Your task to perform on an android device: check google app version Image 0: 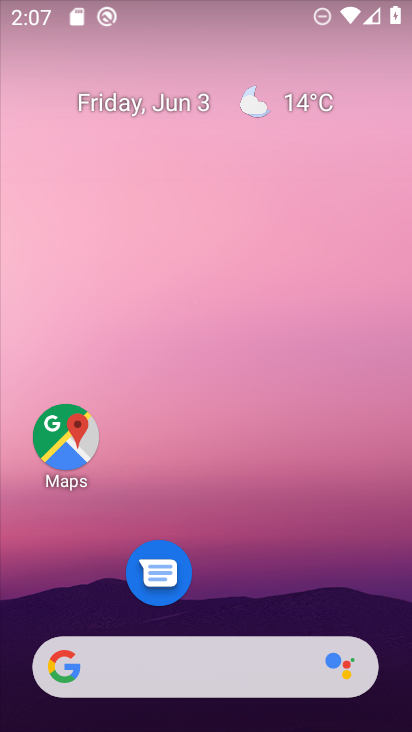
Step 0: drag from (265, 646) to (335, 14)
Your task to perform on an android device: check google app version Image 1: 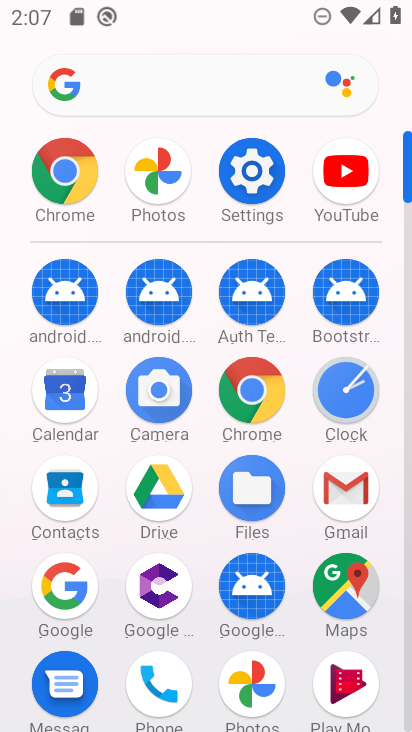
Step 1: click (255, 387)
Your task to perform on an android device: check google app version Image 2: 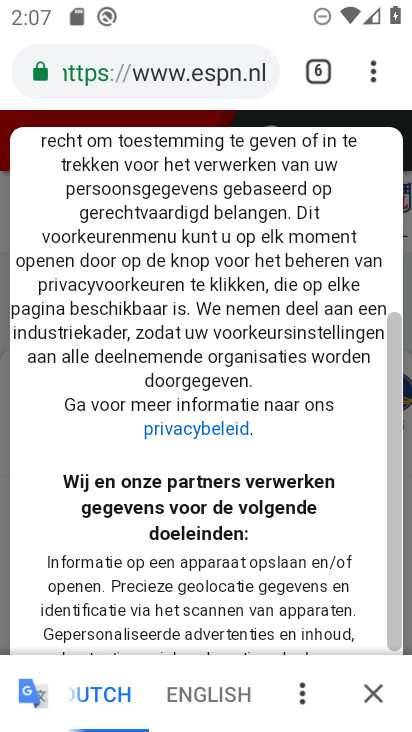
Step 2: drag from (385, 66) to (195, 635)
Your task to perform on an android device: check google app version Image 3: 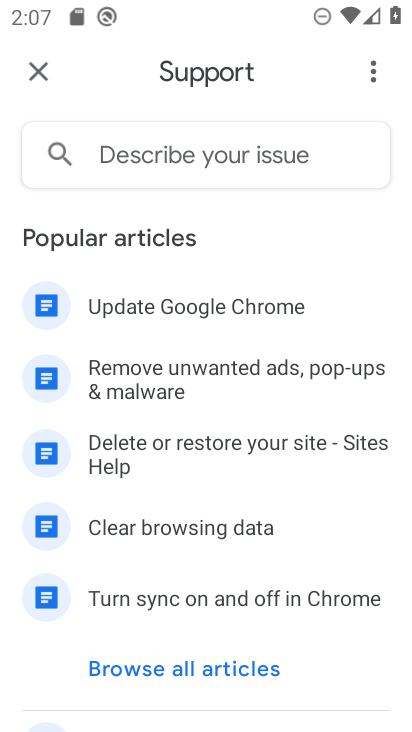
Step 3: click (373, 66)
Your task to perform on an android device: check google app version Image 4: 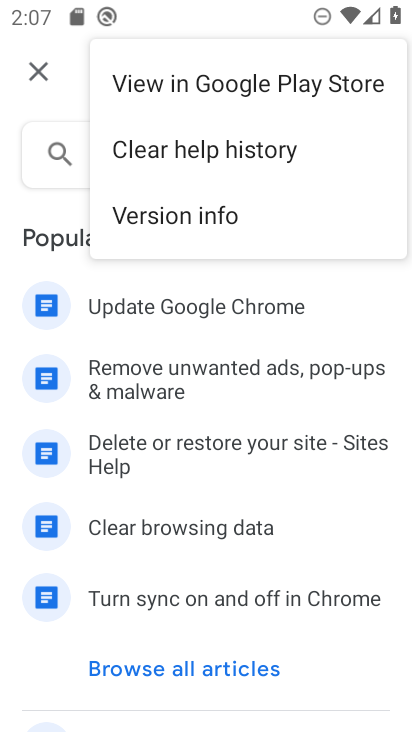
Step 4: click (227, 220)
Your task to perform on an android device: check google app version Image 5: 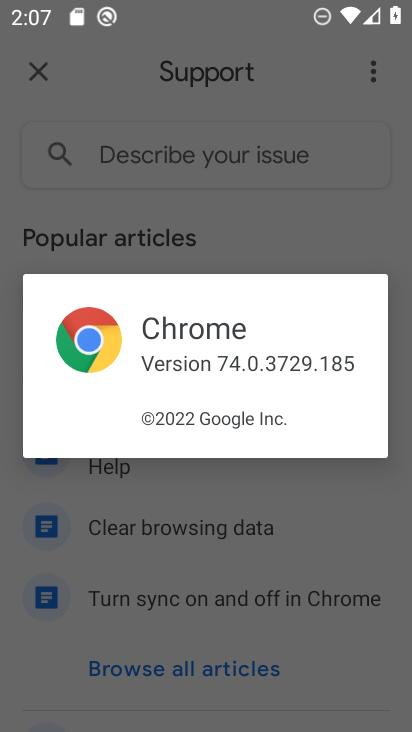
Step 5: task complete